Your task to perform on an android device: Show me popular games on the Play Store Image 0: 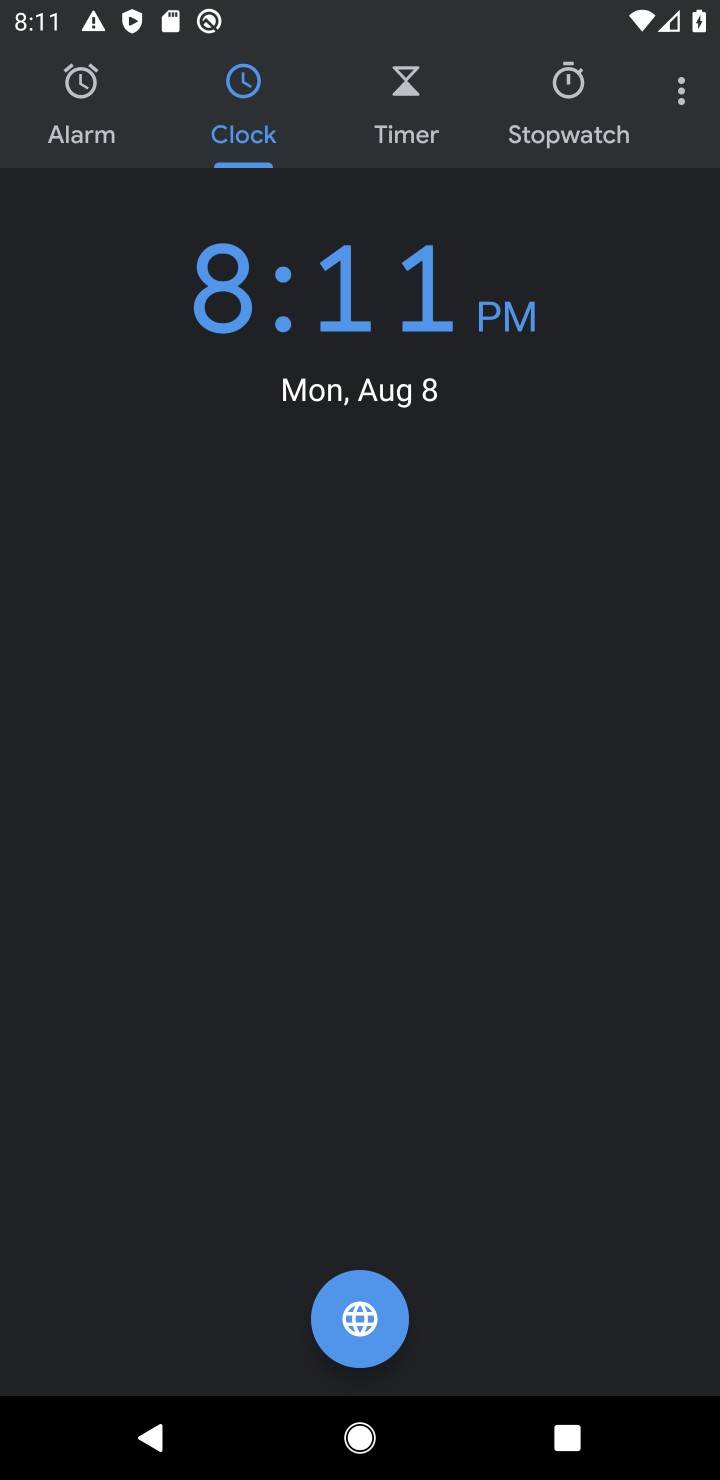
Step 0: press back button
Your task to perform on an android device: Show me popular games on the Play Store Image 1: 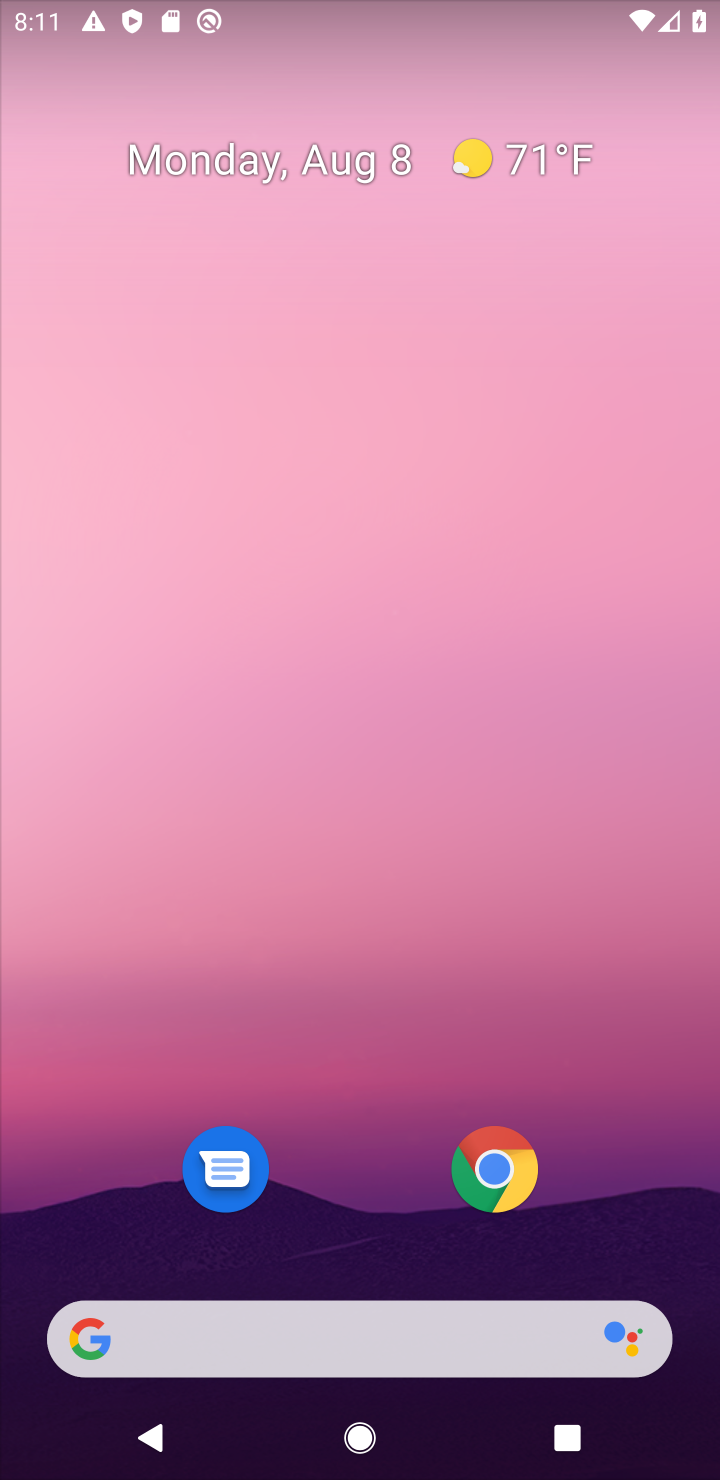
Step 1: drag from (400, 1200) to (490, 14)
Your task to perform on an android device: Show me popular games on the Play Store Image 2: 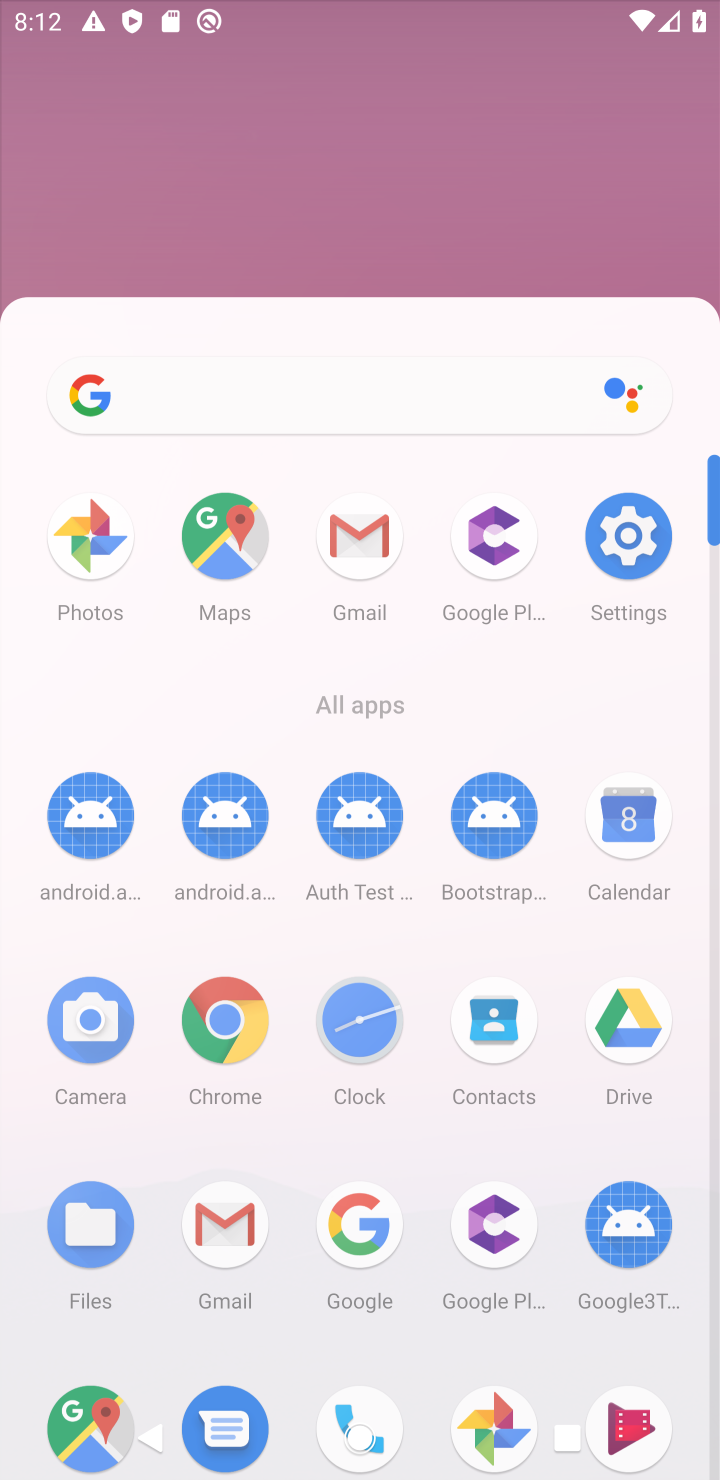
Step 2: drag from (442, 1065) to (557, 201)
Your task to perform on an android device: Show me popular games on the Play Store Image 3: 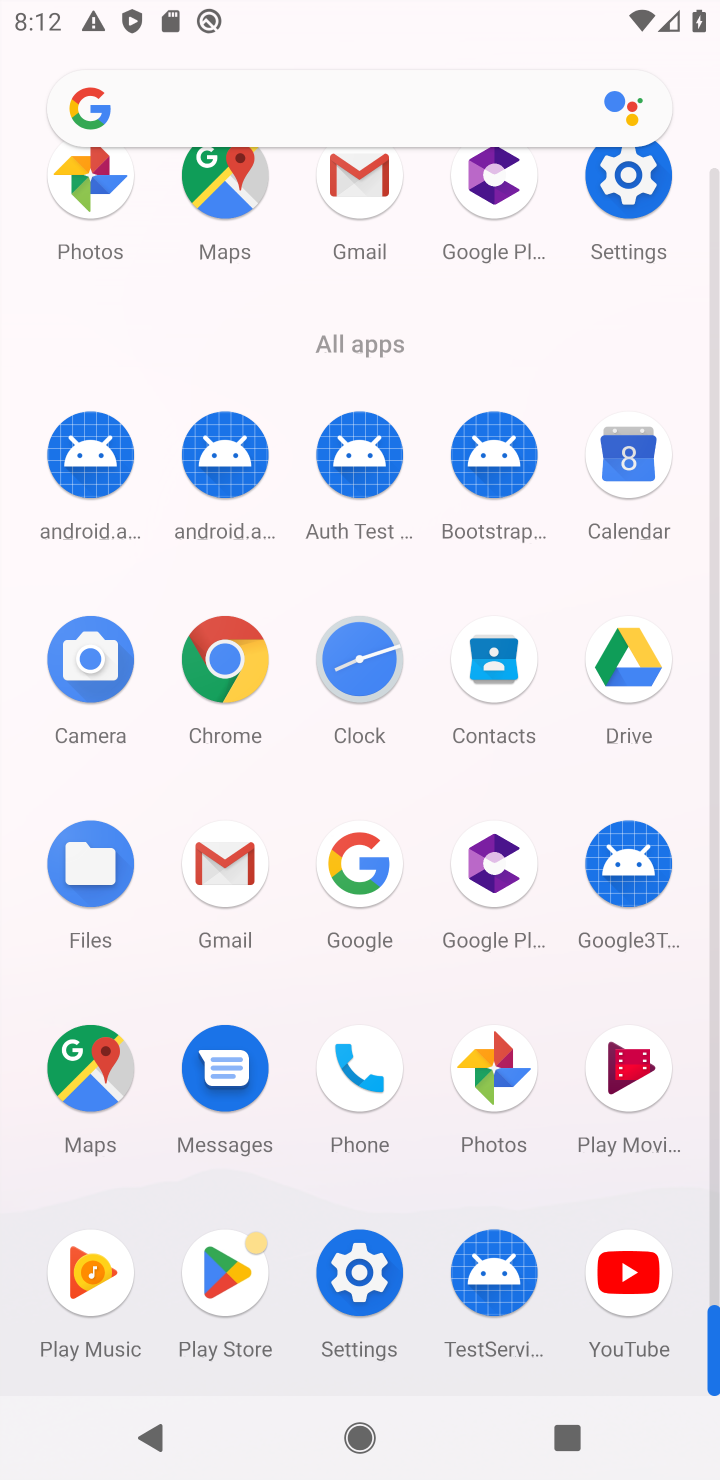
Step 3: click (240, 1299)
Your task to perform on an android device: Show me popular games on the Play Store Image 4: 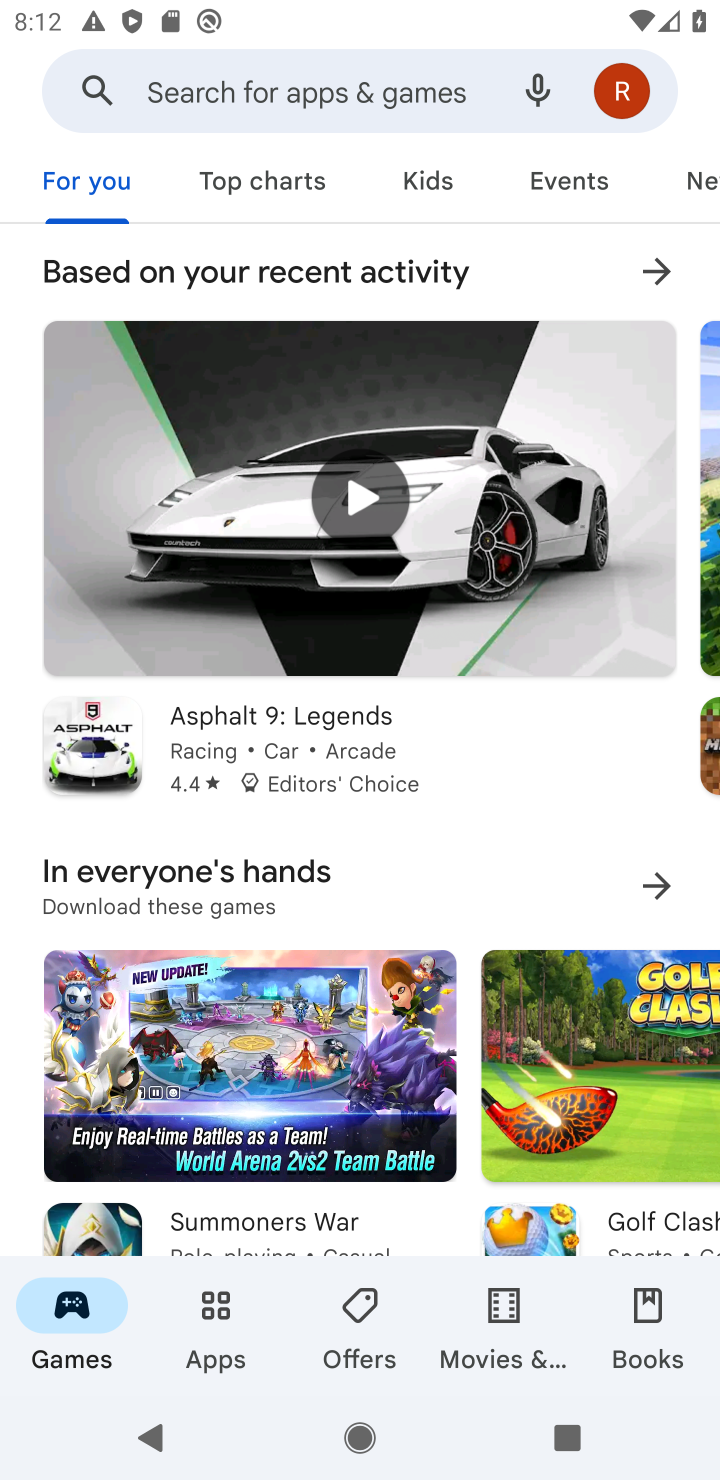
Step 4: drag from (360, 1024) to (452, 414)
Your task to perform on an android device: Show me popular games on the Play Store Image 5: 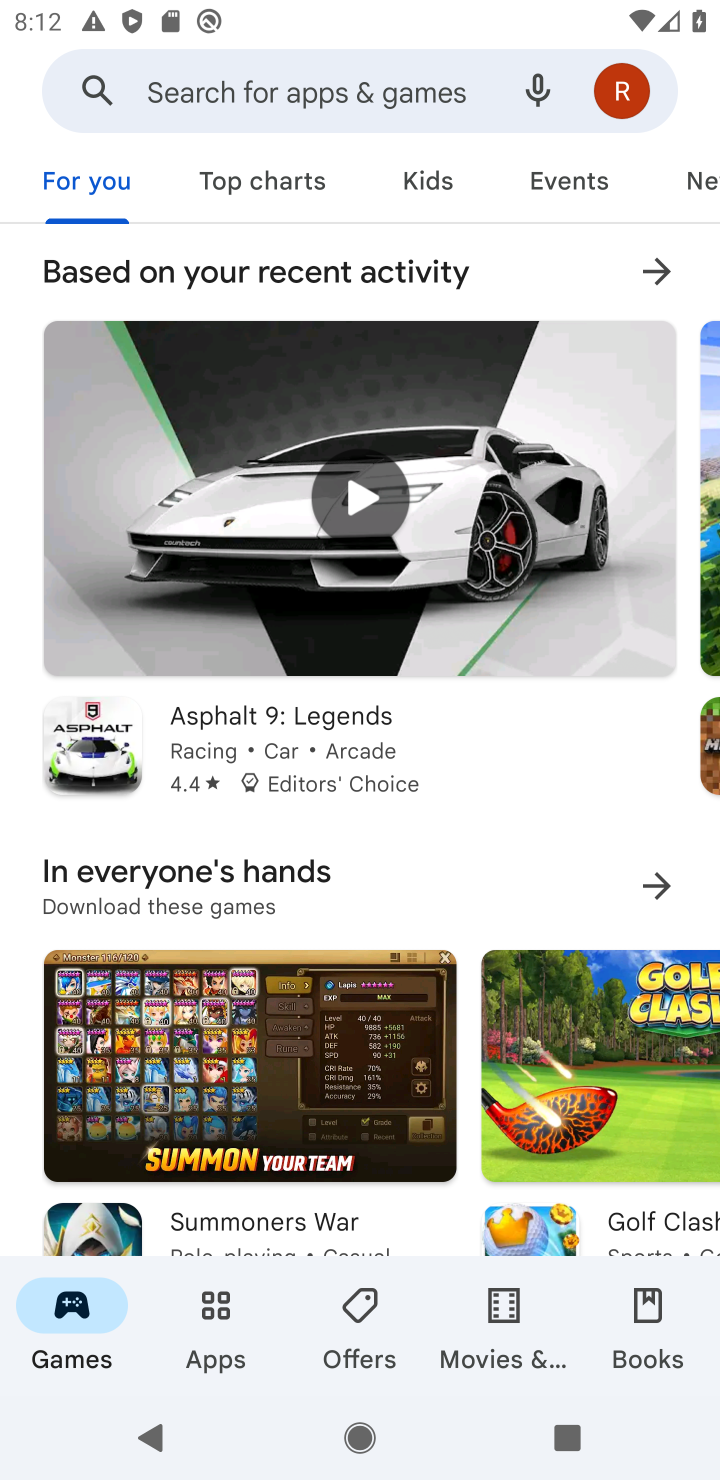
Step 5: drag from (366, 1237) to (510, 280)
Your task to perform on an android device: Show me popular games on the Play Store Image 6: 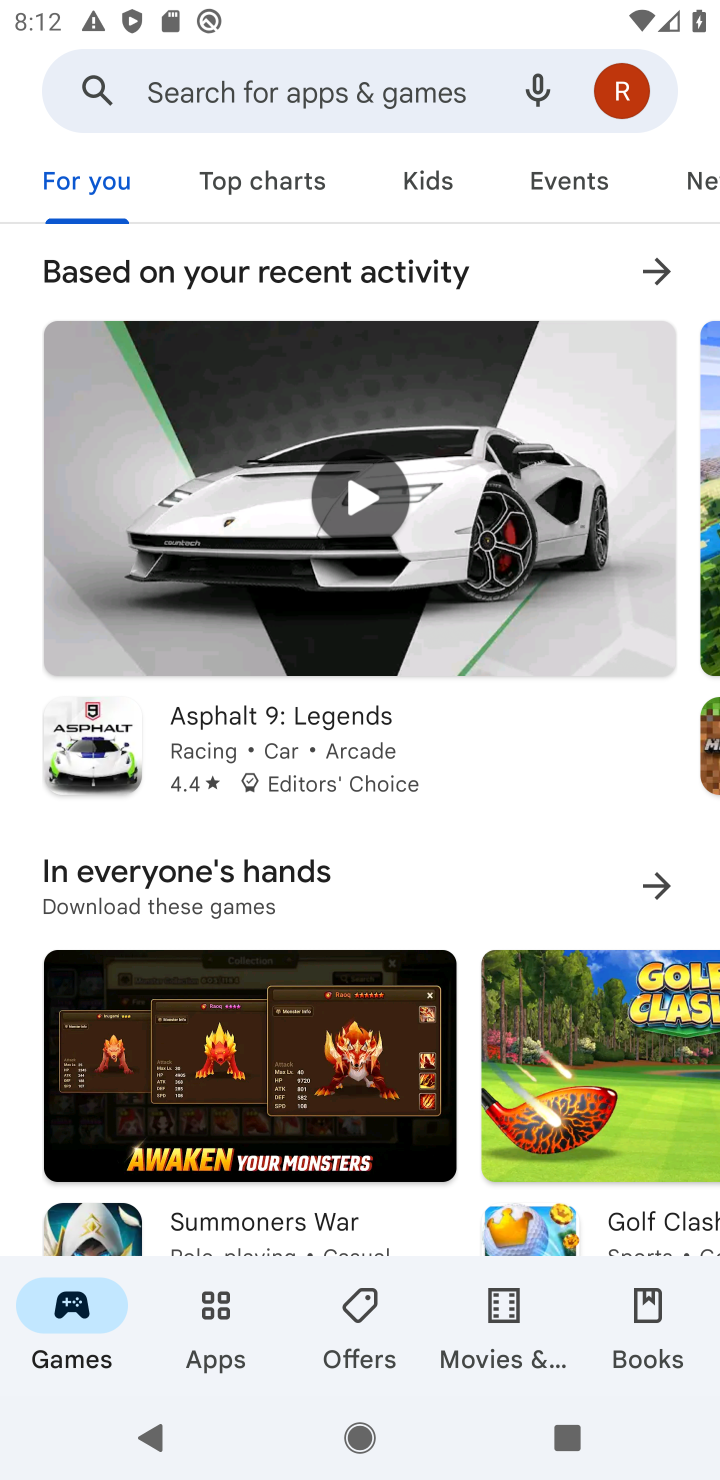
Step 6: drag from (28, 1090) to (148, 100)
Your task to perform on an android device: Show me popular games on the Play Store Image 7: 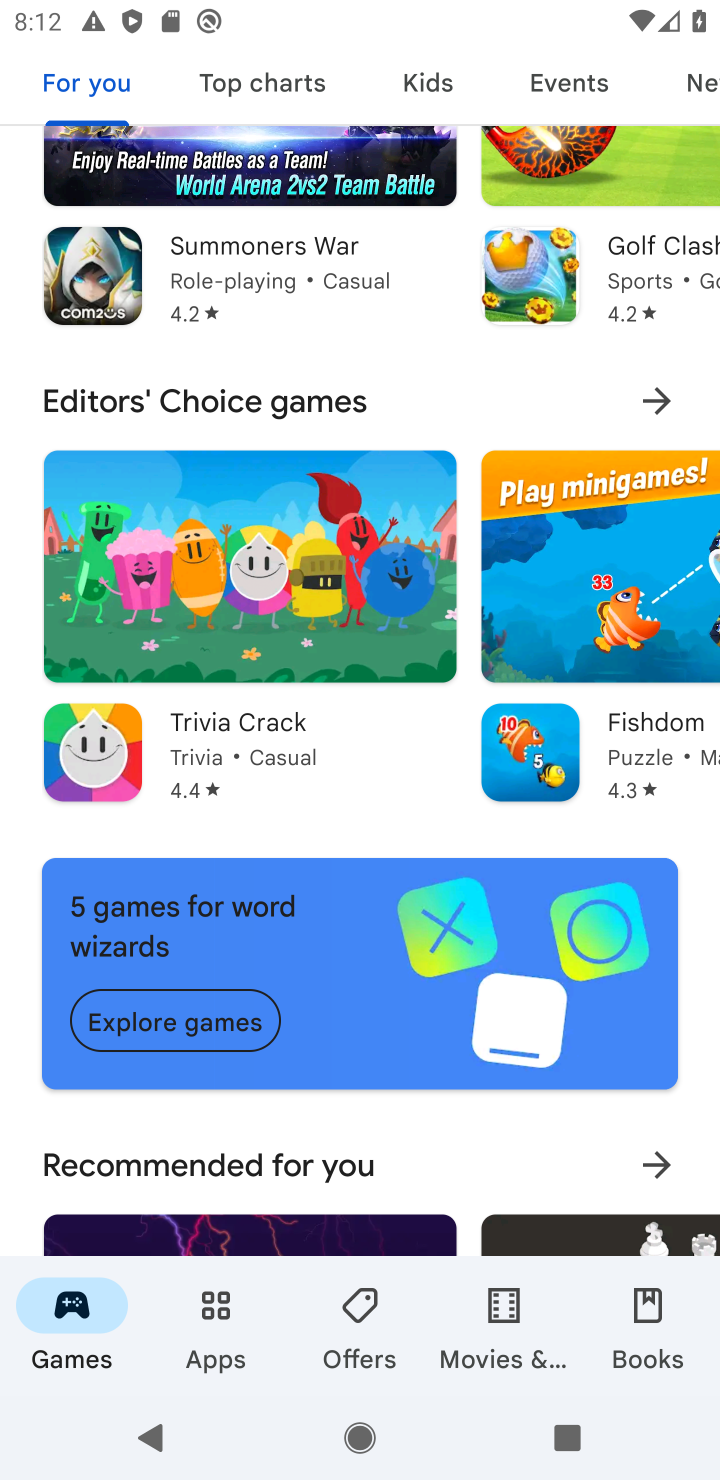
Step 7: drag from (37, 1177) to (48, 209)
Your task to perform on an android device: Show me popular games on the Play Store Image 8: 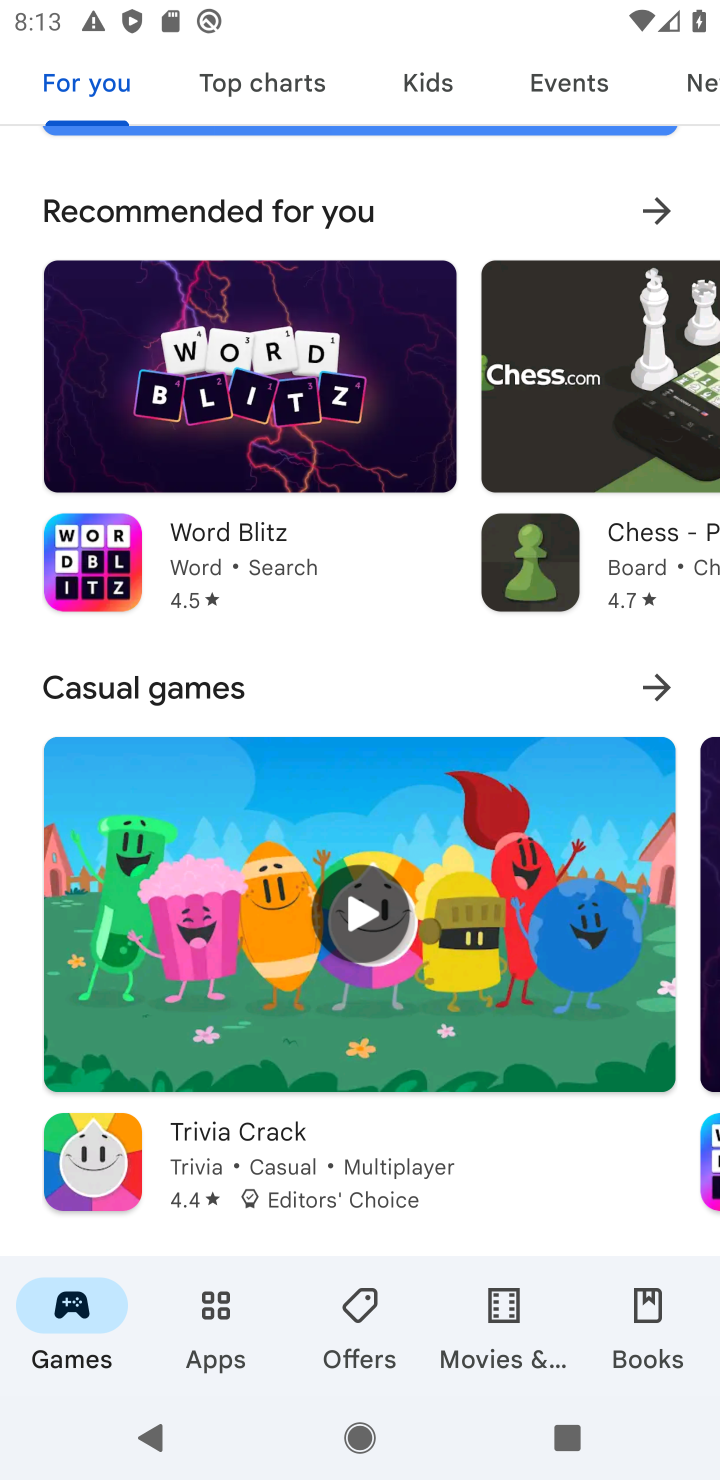
Step 8: drag from (17, 1228) to (74, 202)
Your task to perform on an android device: Show me popular games on the Play Store Image 9: 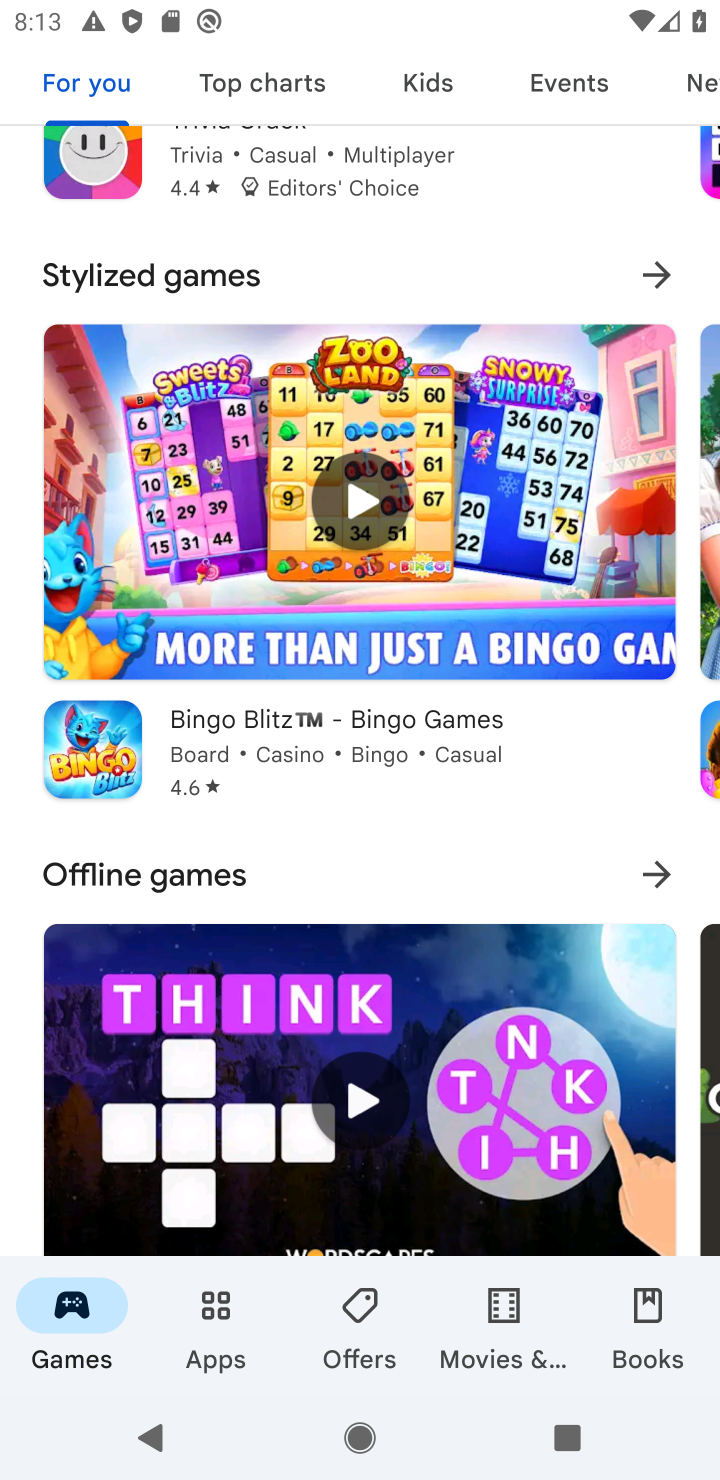
Step 9: drag from (4, 1217) to (71, 411)
Your task to perform on an android device: Show me popular games on the Play Store Image 10: 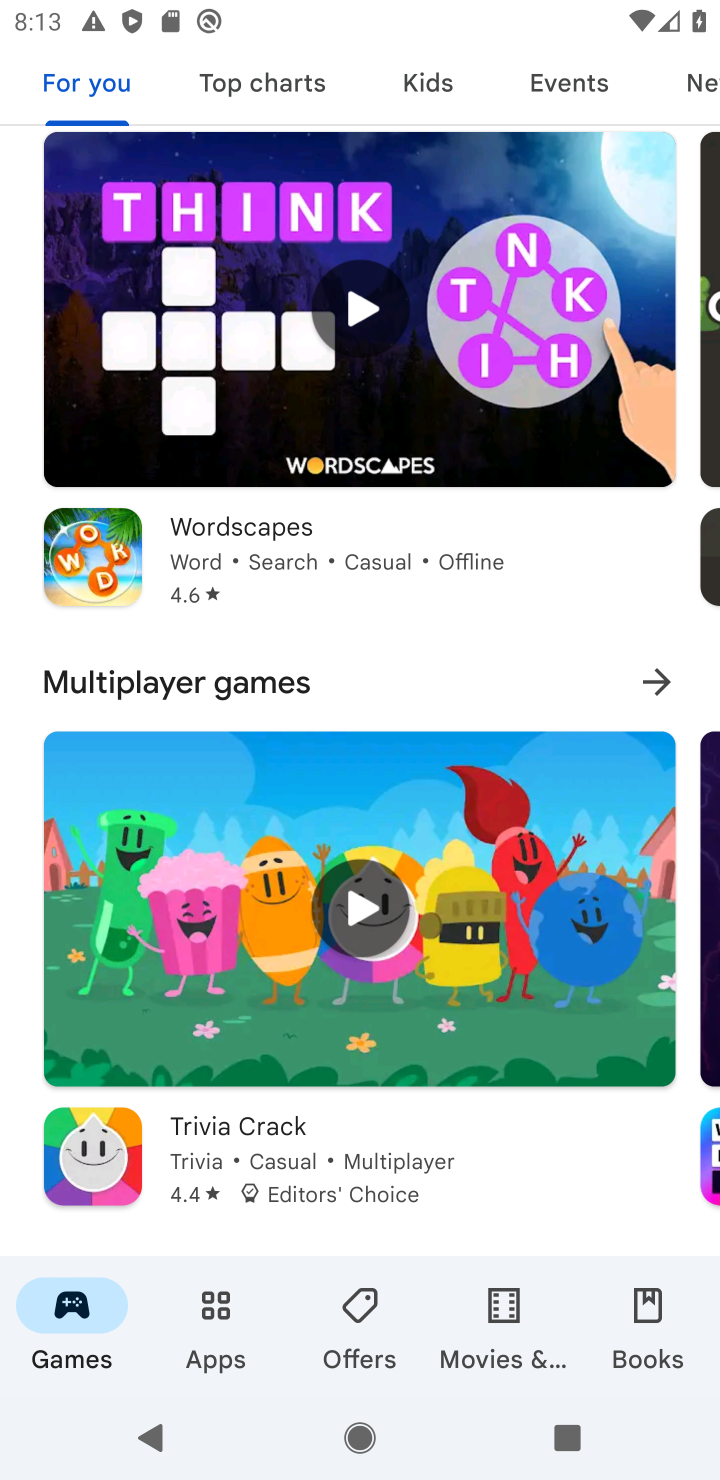
Step 10: drag from (23, 1046) to (53, 232)
Your task to perform on an android device: Show me popular games on the Play Store Image 11: 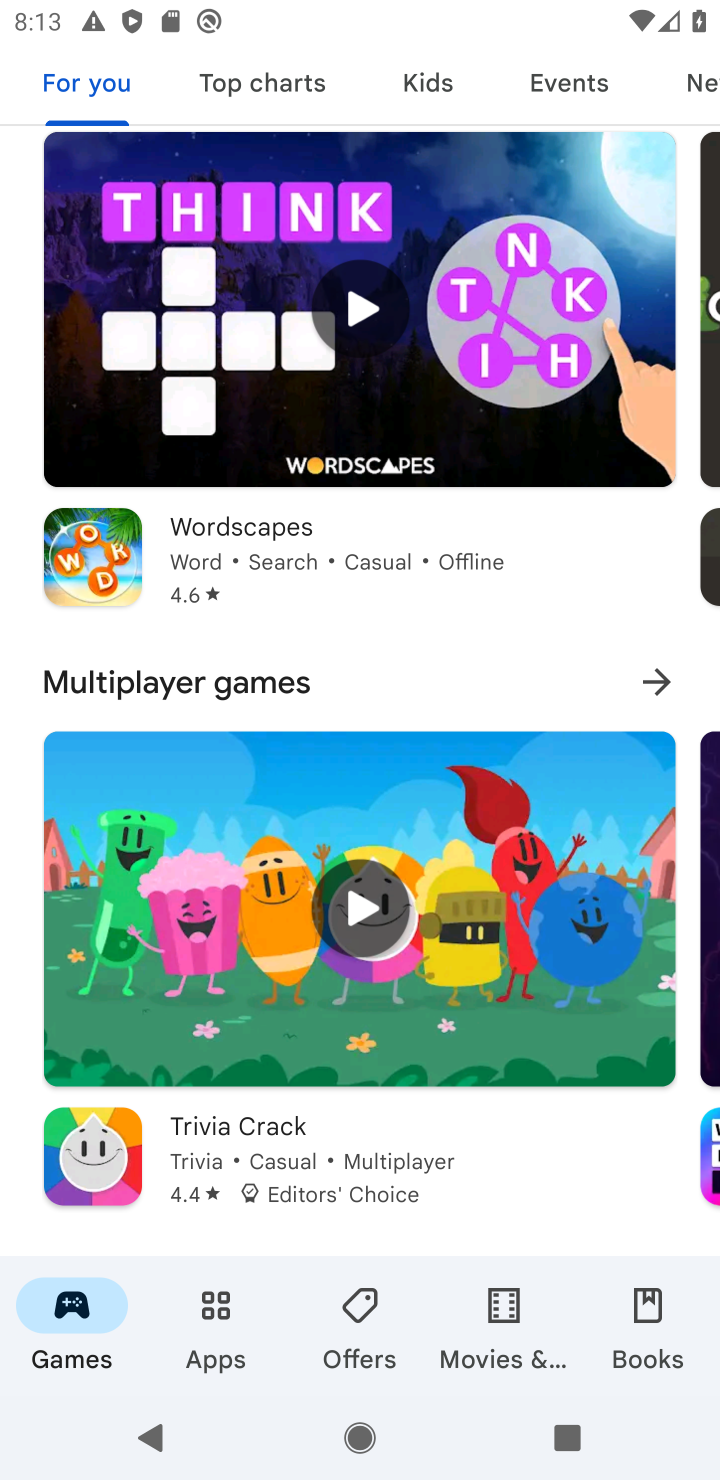
Step 11: drag from (34, 1063) to (60, 133)
Your task to perform on an android device: Show me popular games on the Play Store Image 12: 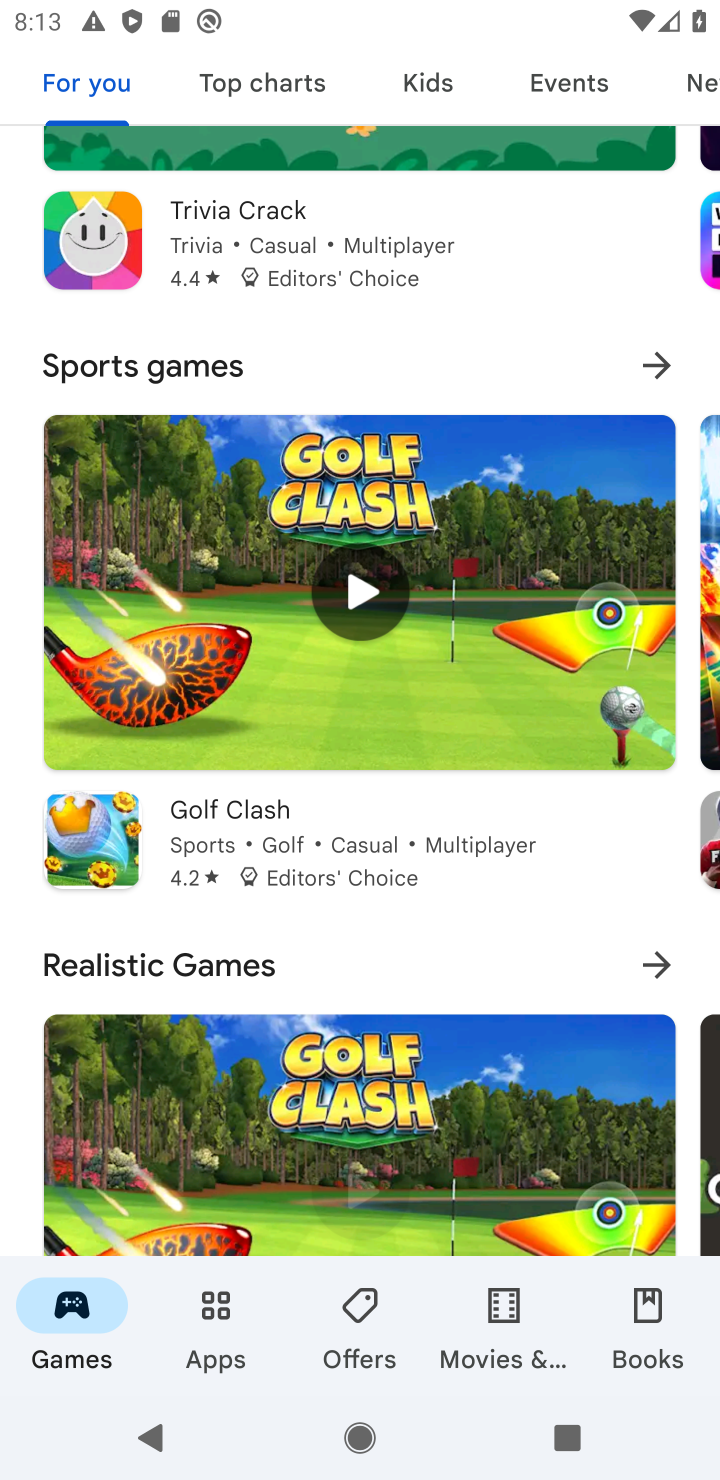
Step 12: drag from (25, 1103) to (40, 152)
Your task to perform on an android device: Show me popular games on the Play Store Image 13: 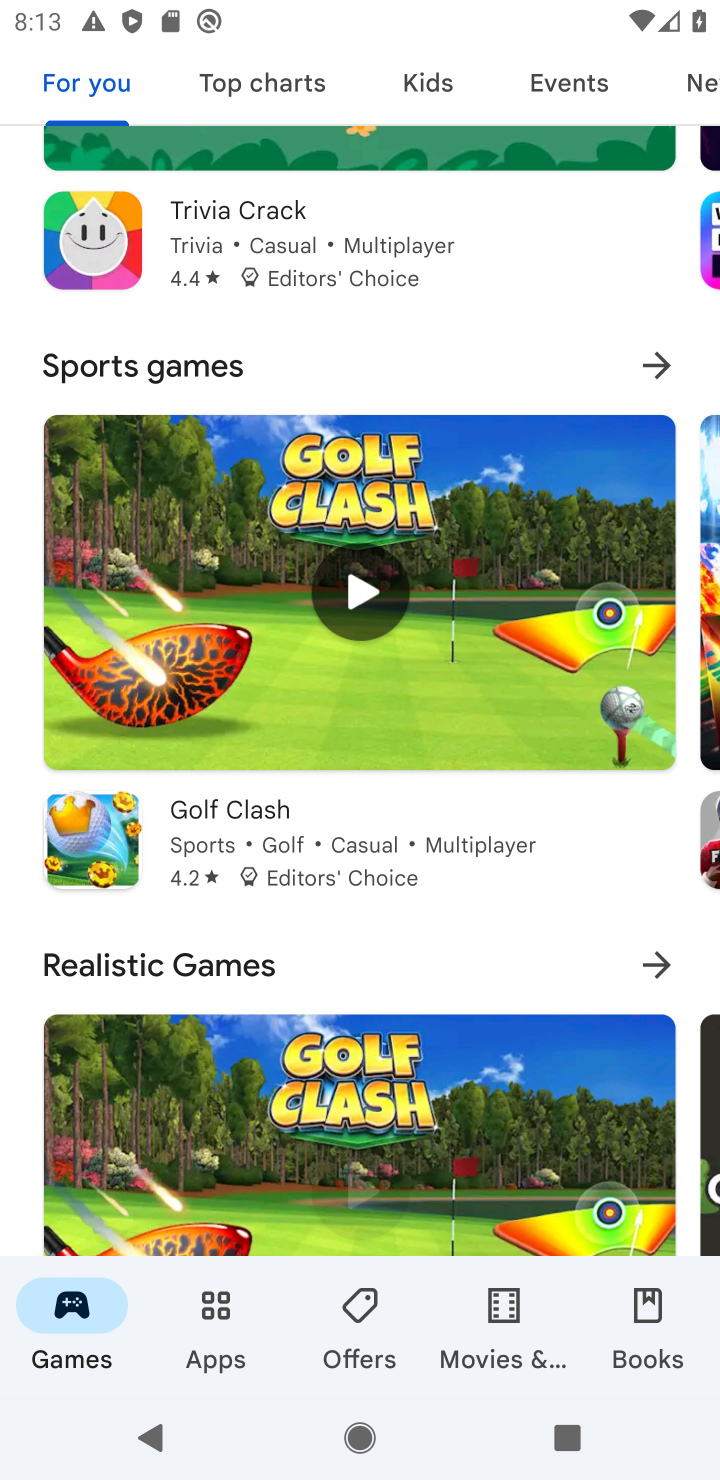
Step 13: drag from (12, 1050) to (8, 360)
Your task to perform on an android device: Show me popular games on the Play Store Image 14: 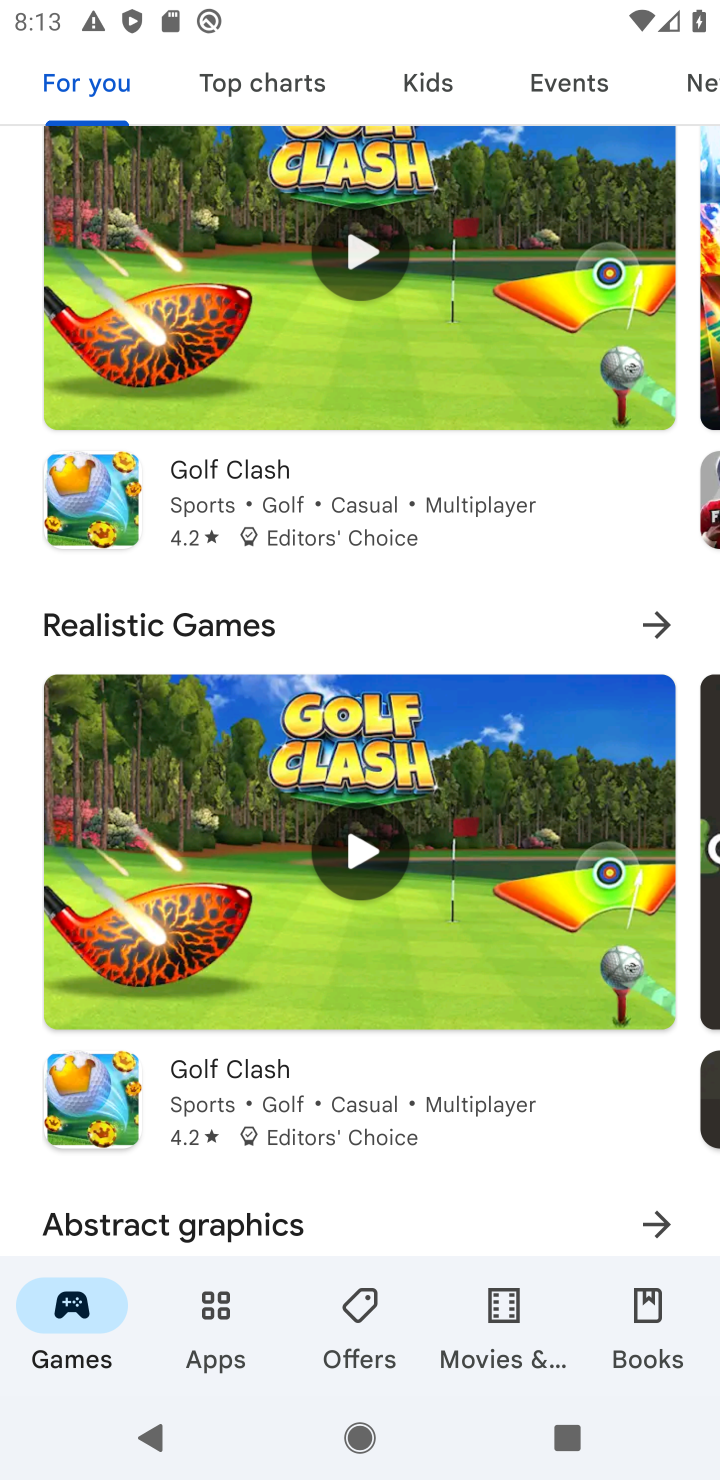
Step 14: drag from (23, 1124) to (13, 186)
Your task to perform on an android device: Show me popular games on the Play Store Image 15: 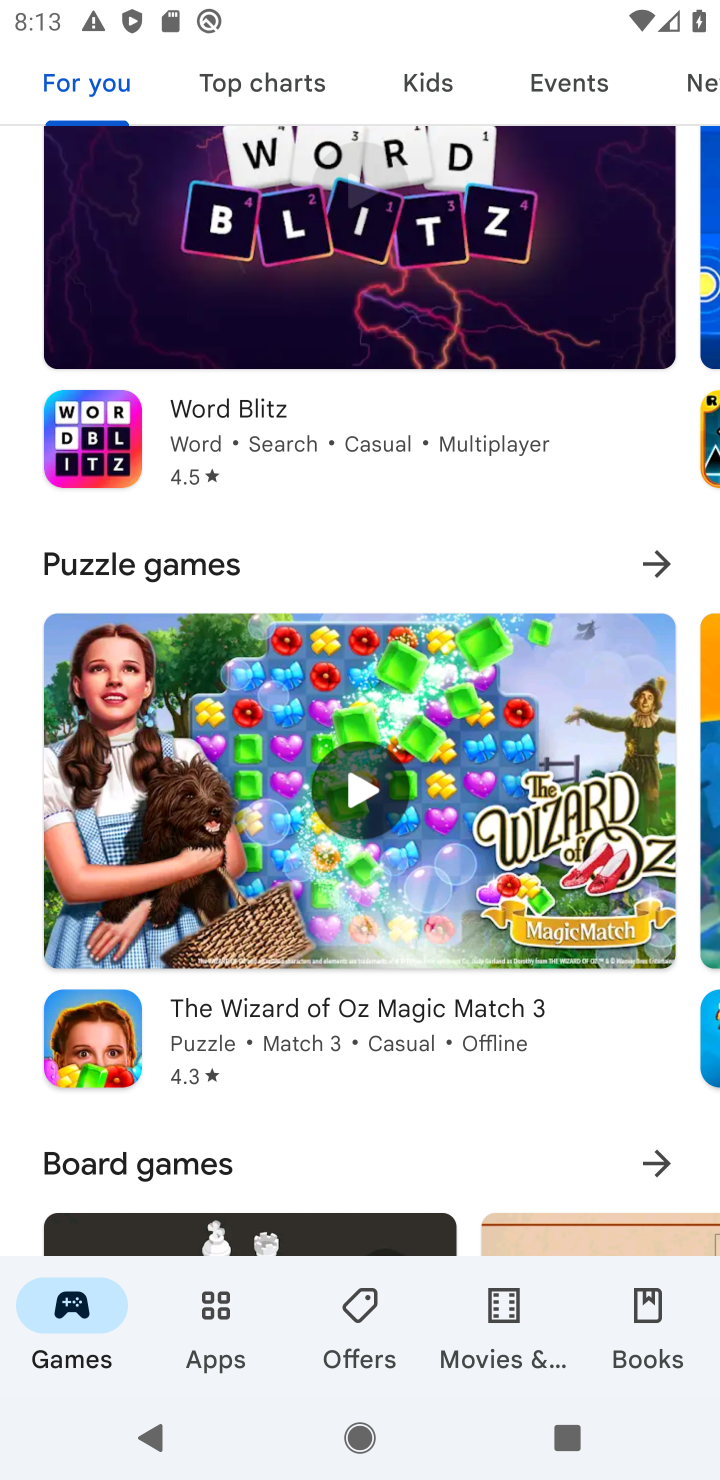
Step 15: drag from (22, 1095) to (54, 81)
Your task to perform on an android device: Show me popular games on the Play Store Image 16: 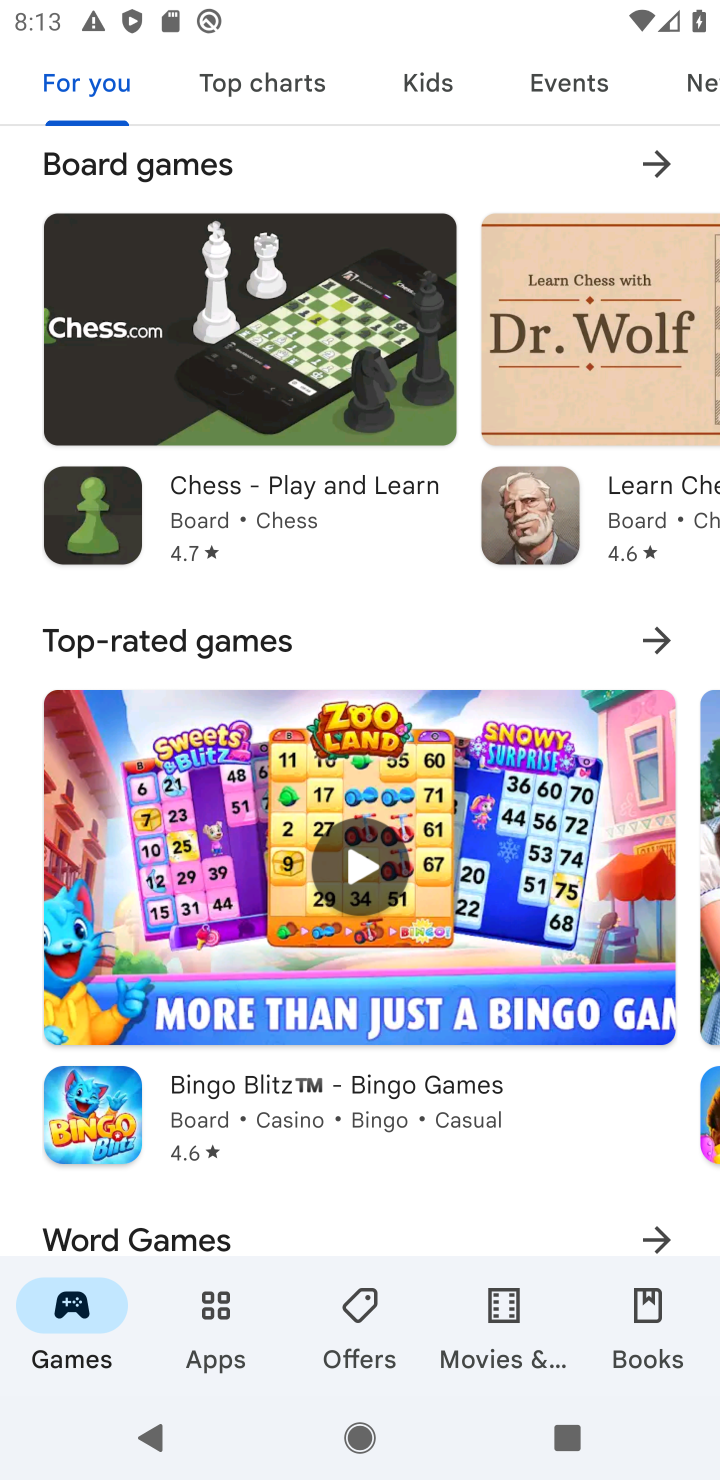
Step 16: drag from (4, 1113) to (45, 501)
Your task to perform on an android device: Show me popular games on the Play Store Image 17: 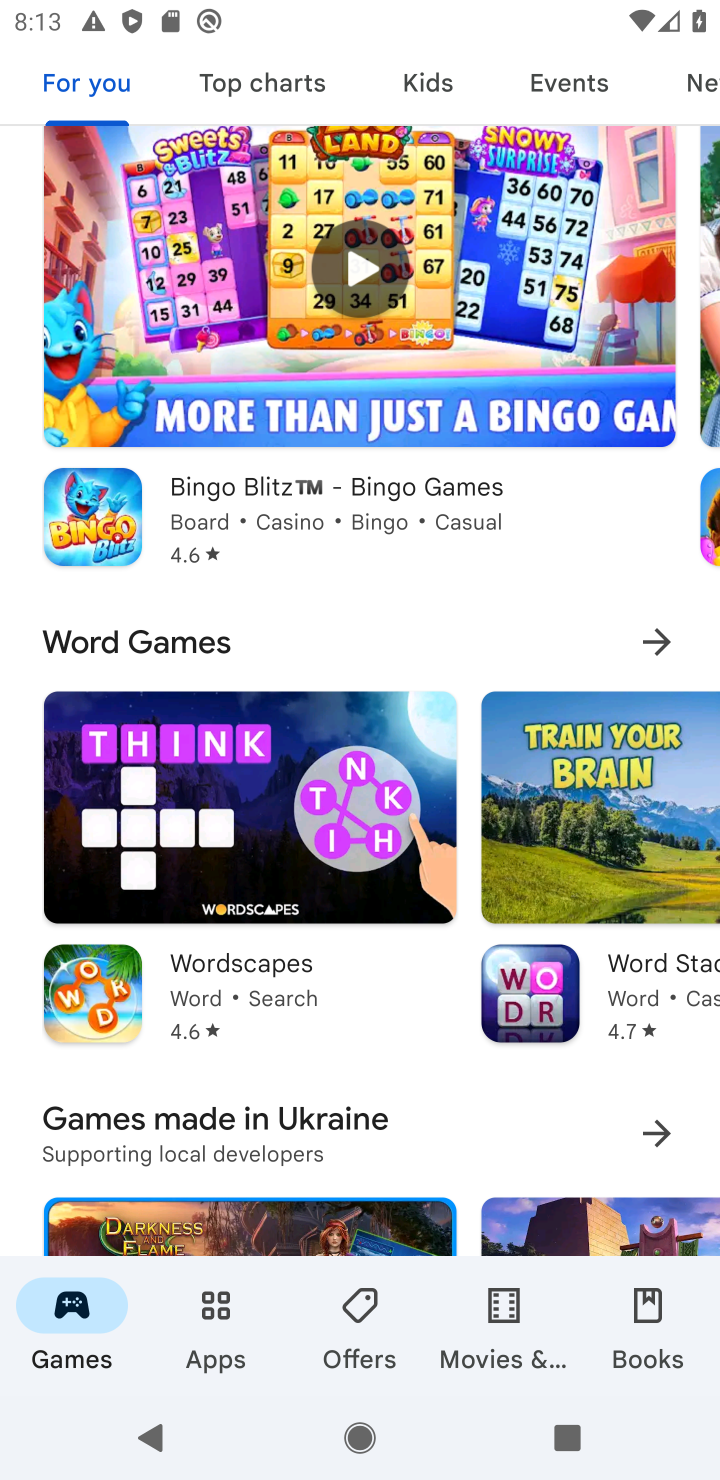
Step 17: drag from (23, 1178) to (23, 514)
Your task to perform on an android device: Show me popular games on the Play Store Image 18: 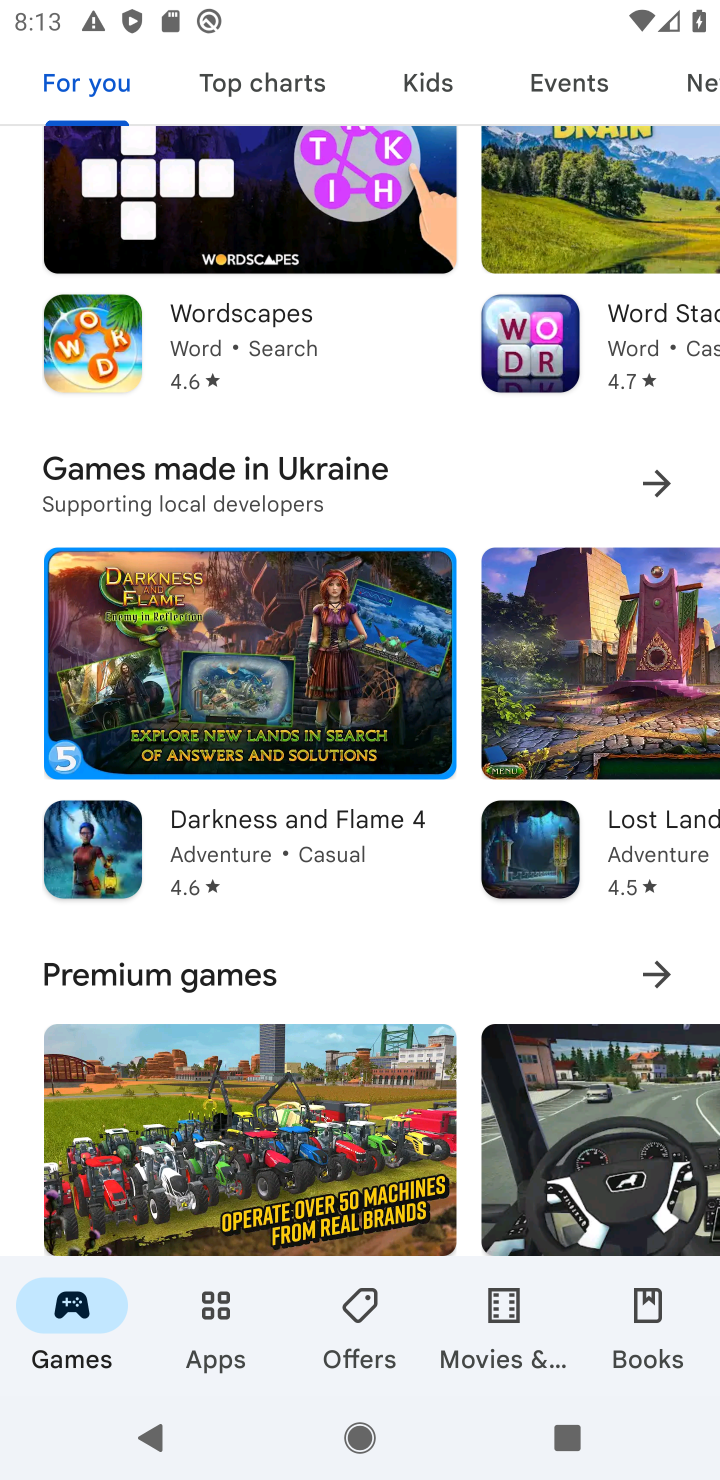
Step 18: drag from (34, 984) to (73, 100)
Your task to perform on an android device: Show me popular games on the Play Store Image 19: 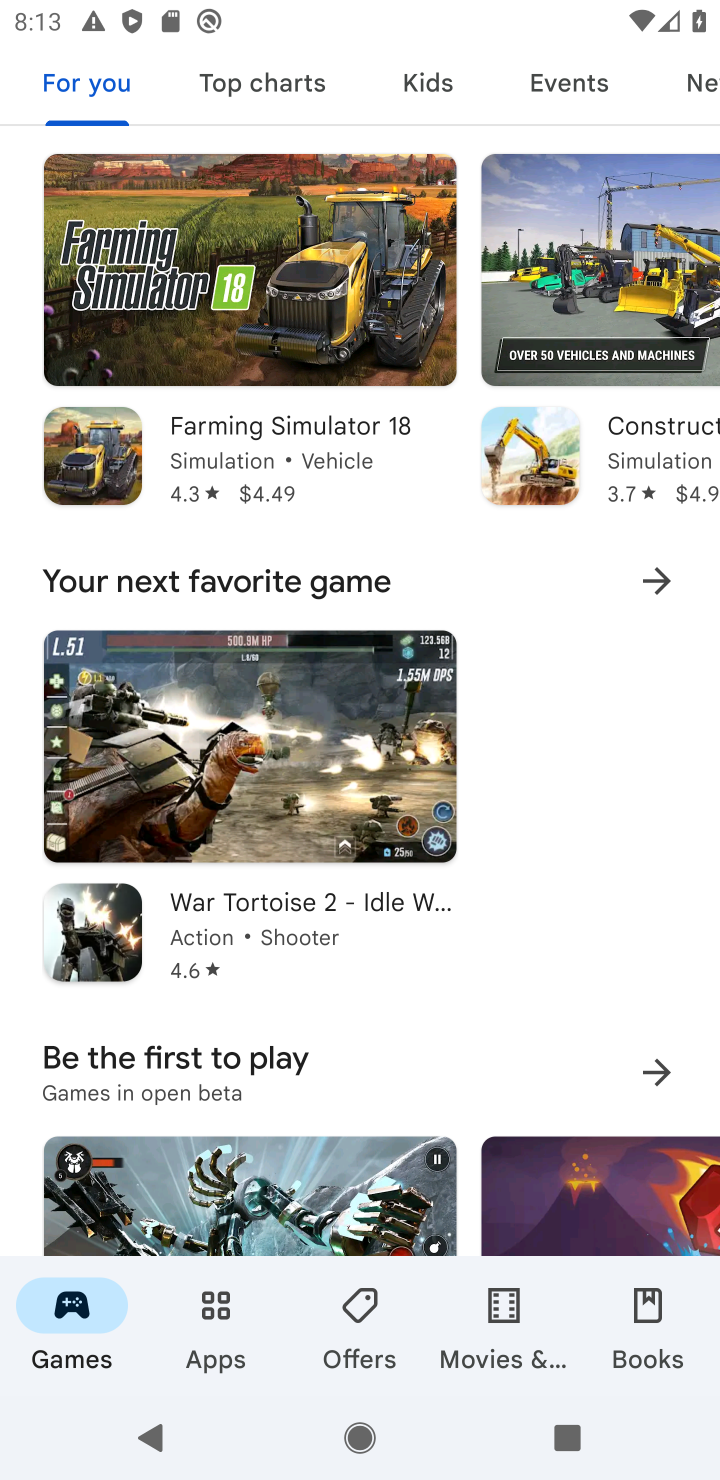
Step 19: drag from (22, 1088) to (33, 65)
Your task to perform on an android device: Show me popular games on the Play Store Image 20: 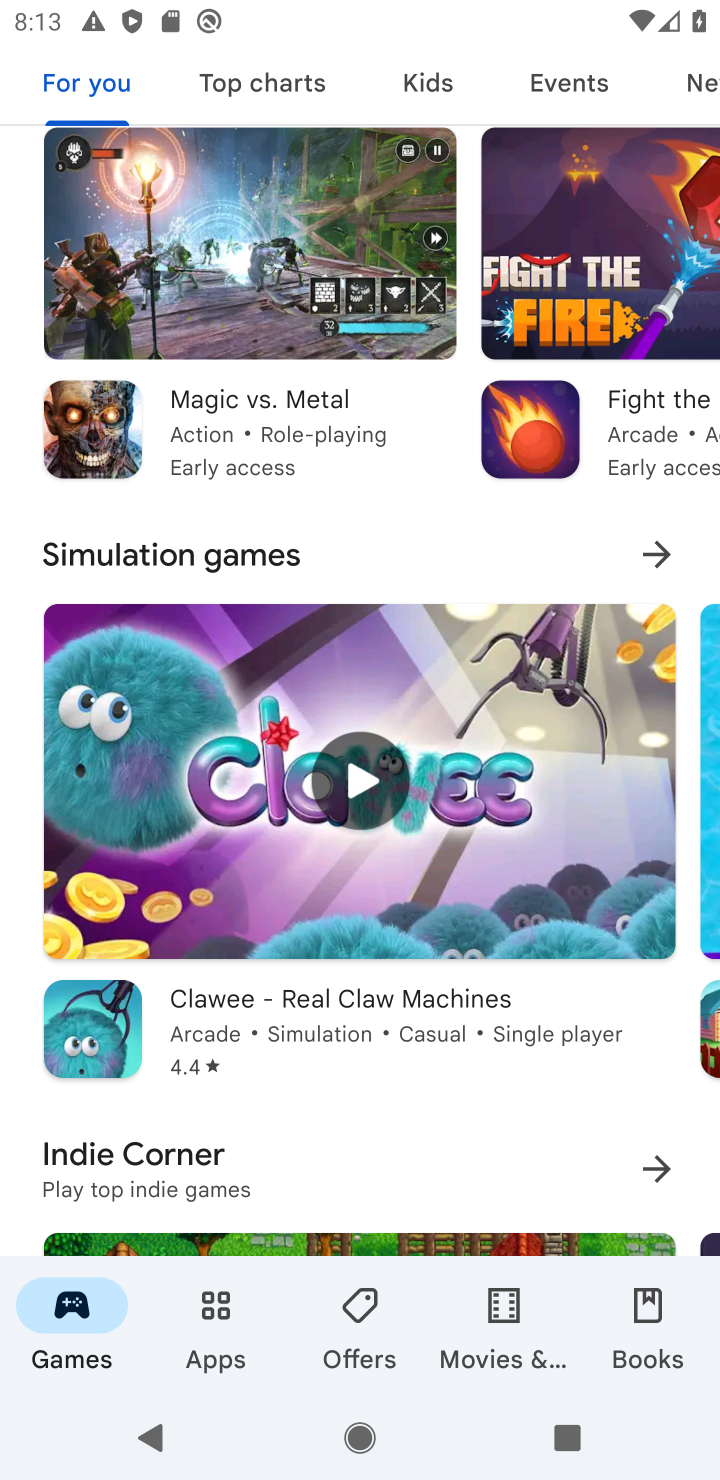
Step 20: drag from (15, 1104) to (37, 212)
Your task to perform on an android device: Show me popular games on the Play Store Image 21: 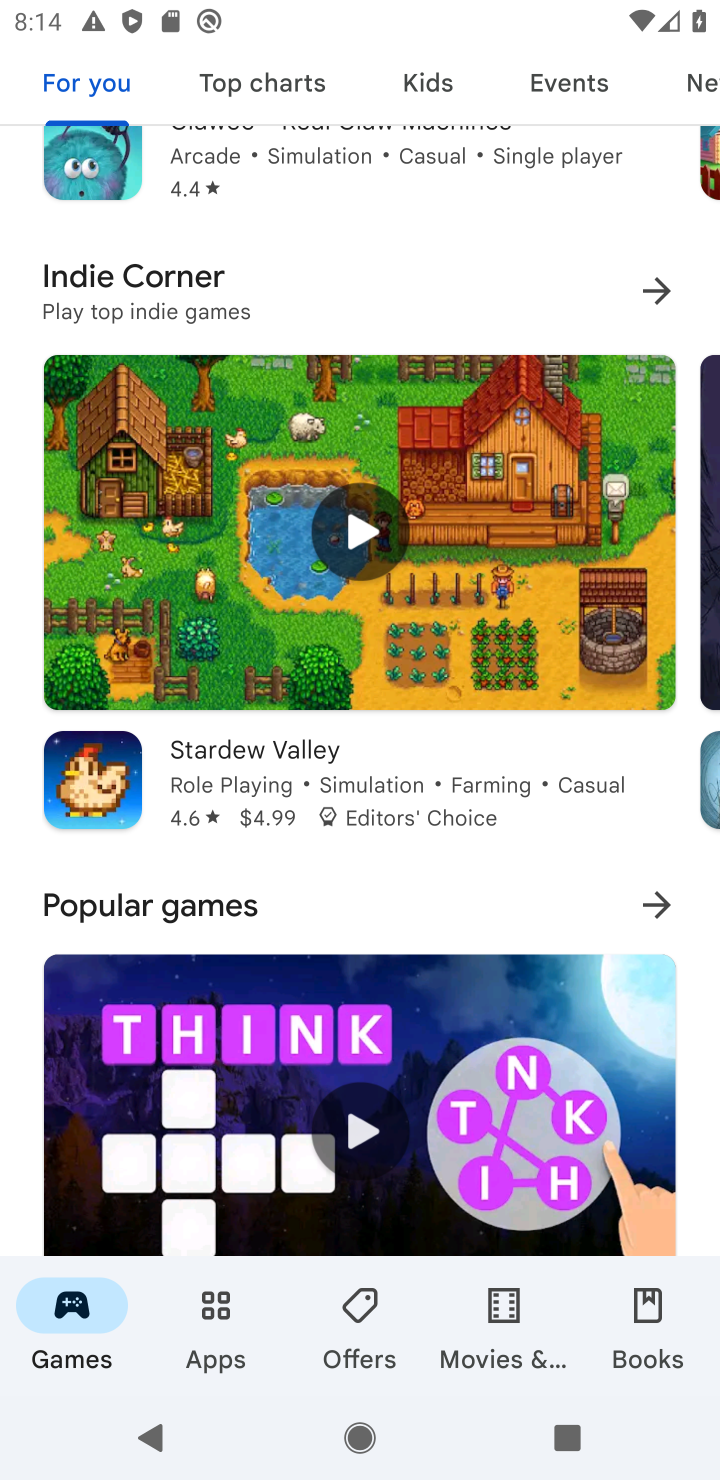
Step 21: click (650, 906)
Your task to perform on an android device: Show me popular games on the Play Store Image 22: 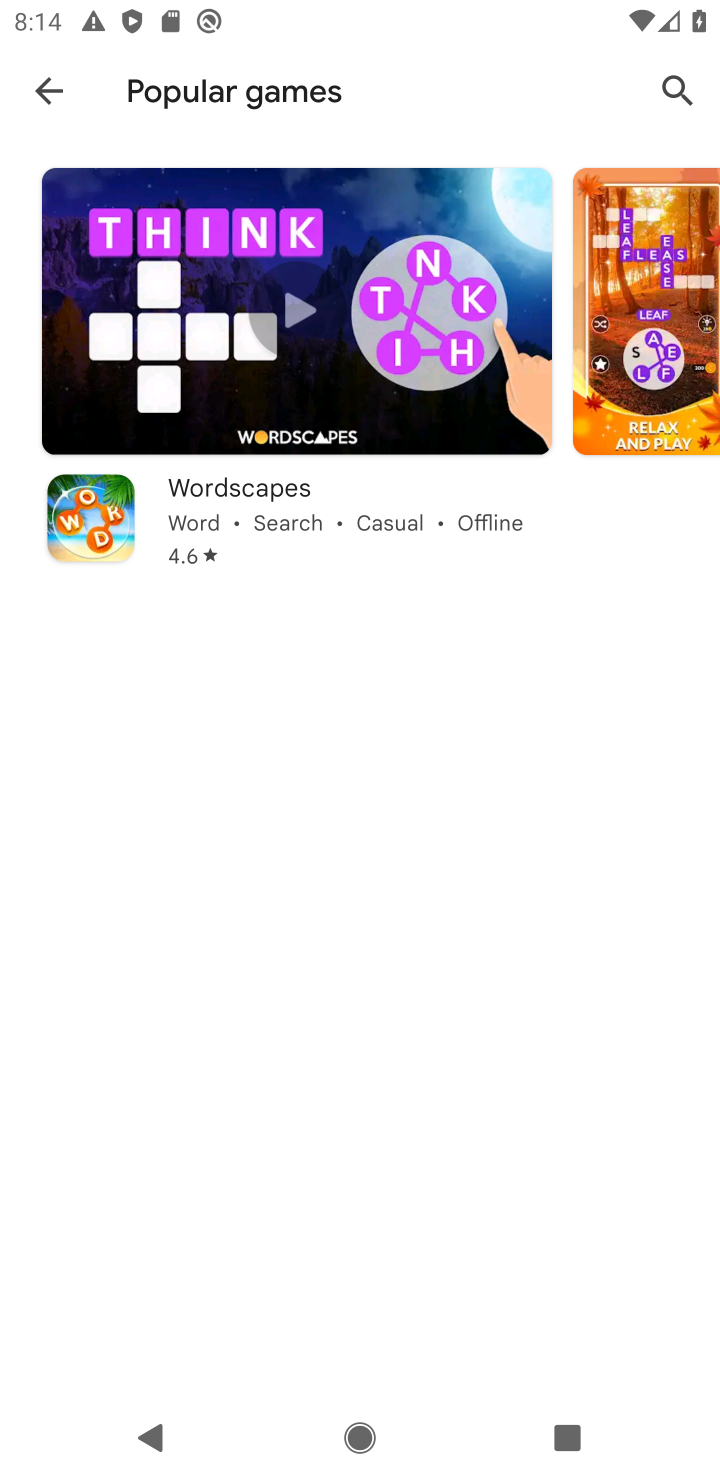
Step 22: task complete